Your task to perform on an android device: Open the settings Image 0: 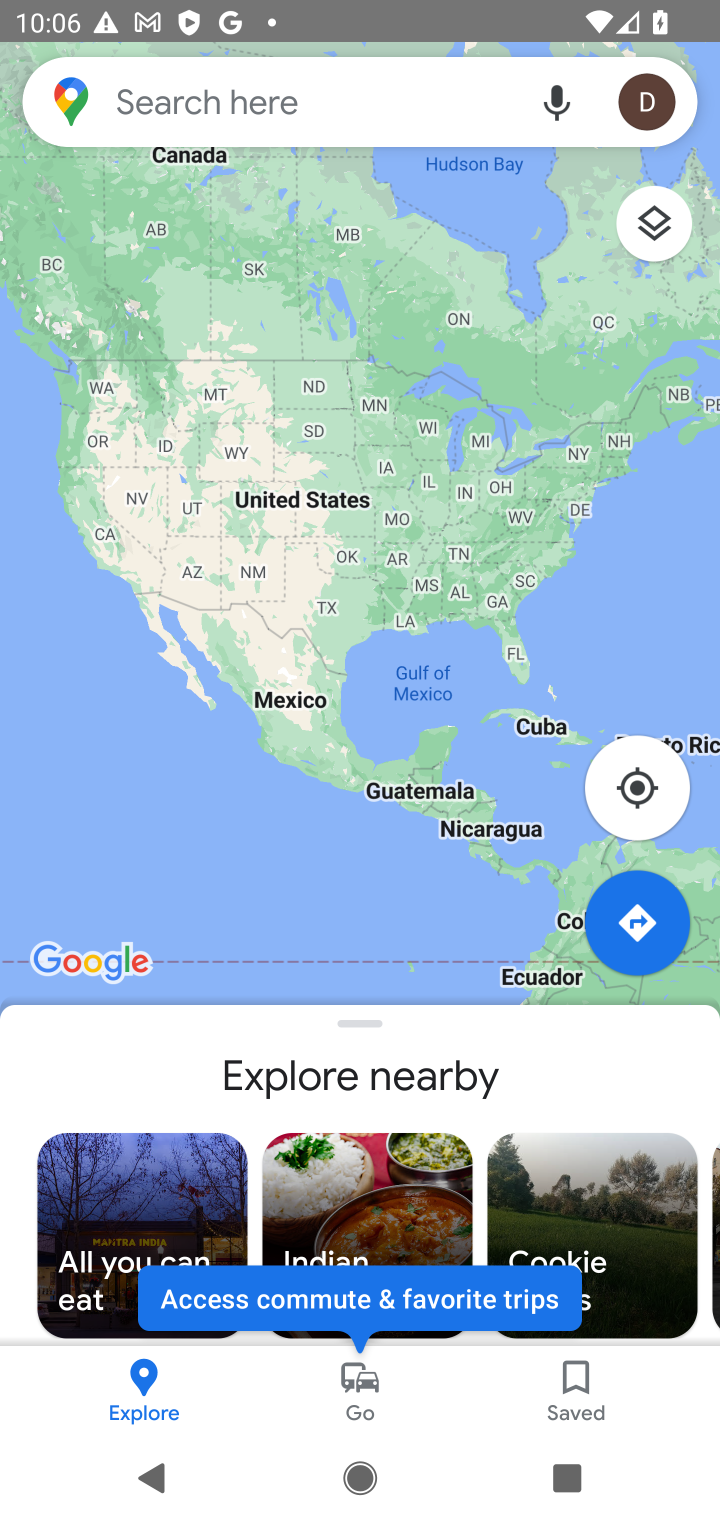
Step 0: press home button
Your task to perform on an android device: Open the settings Image 1: 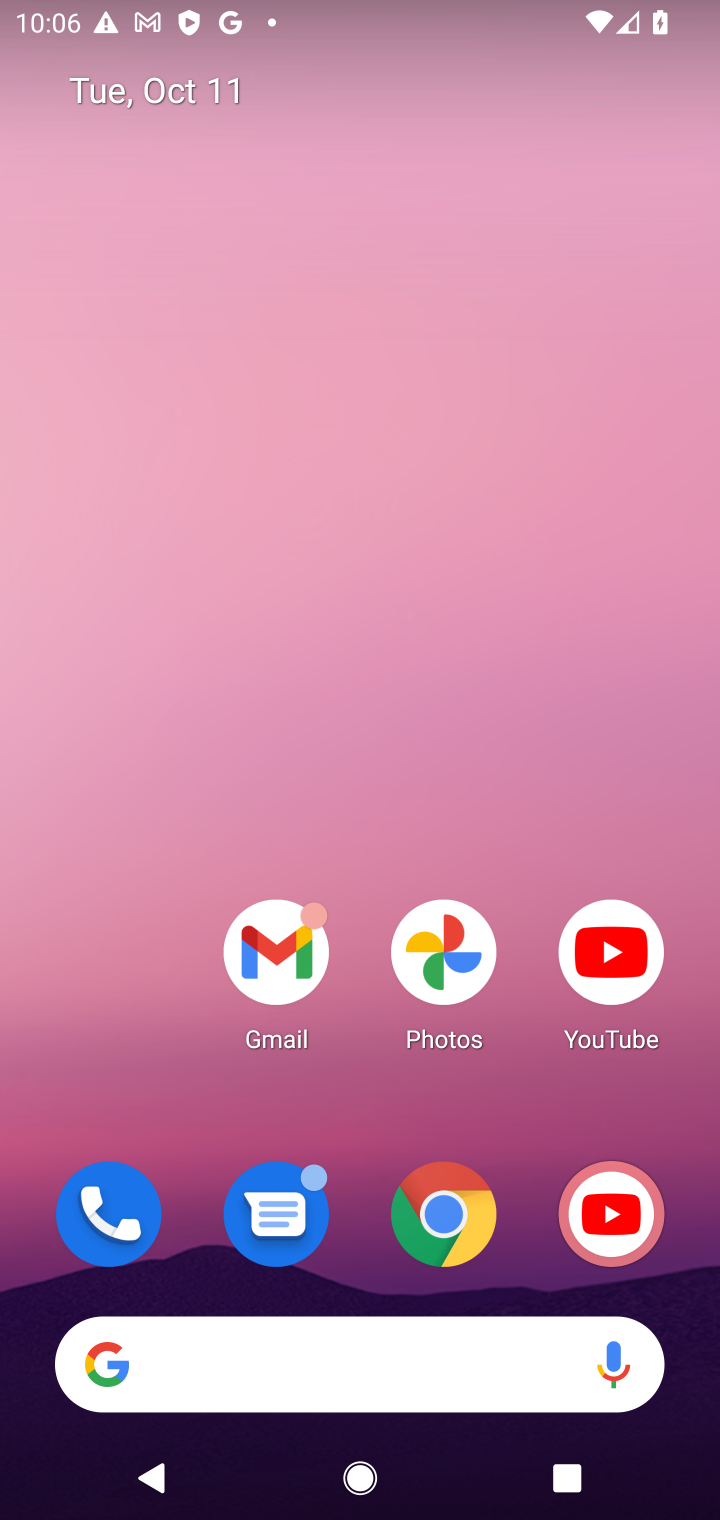
Step 1: drag from (434, 1124) to (407, 79)
Your task to perform on an android device: Open the settings Image 2: 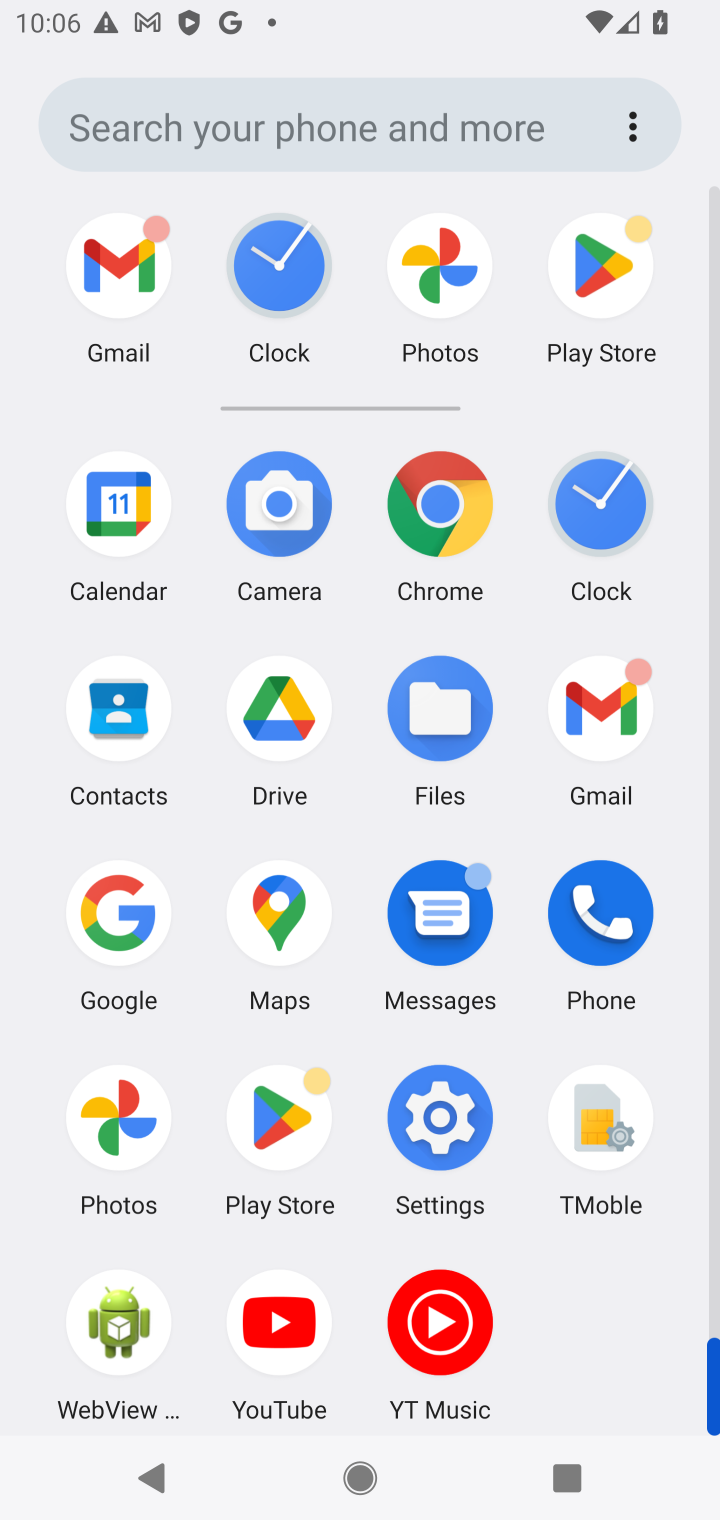
Step 2: click (464, 1110)
Your task to perform on an android device: Open the settings Image 3: 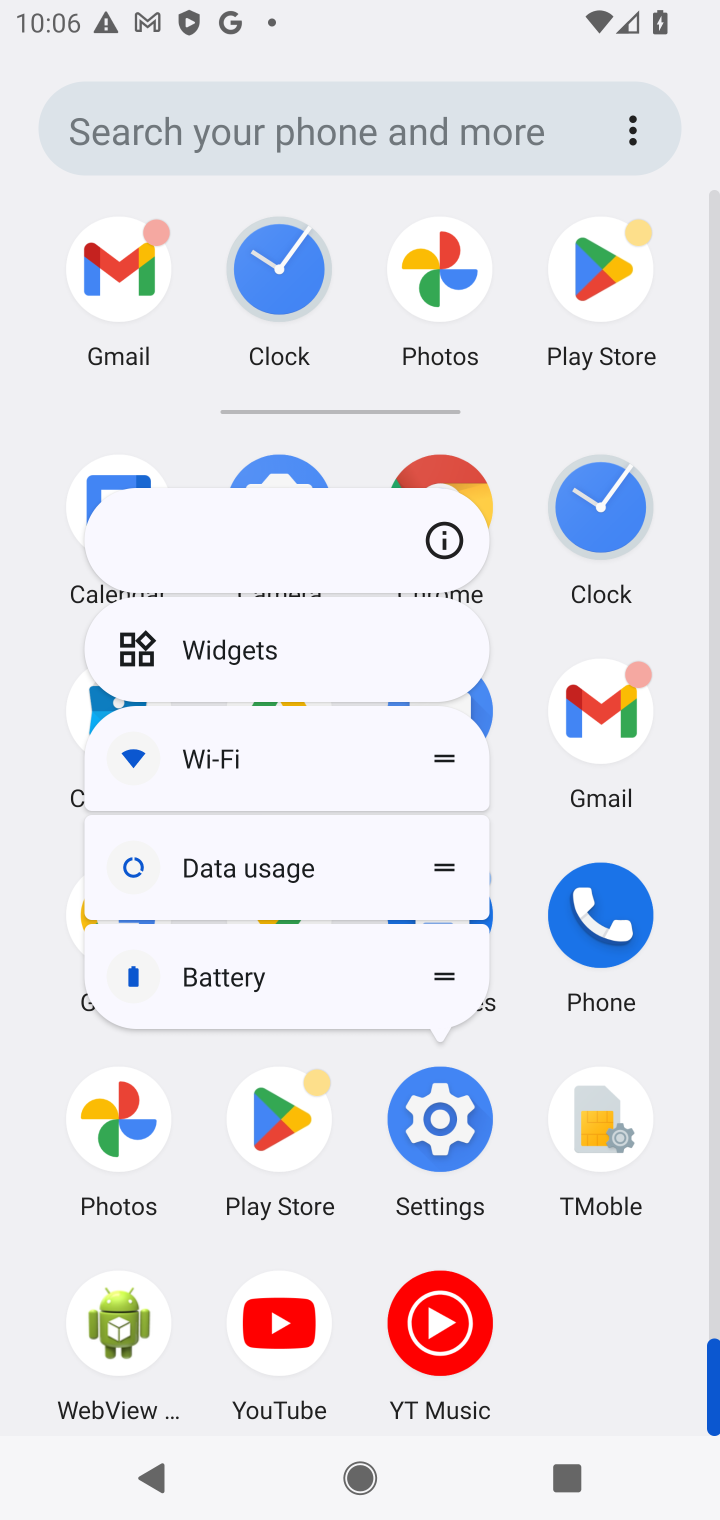
Step 3: click (452, 1087)
Your task to perform on an android device: Open the settings Image 4: 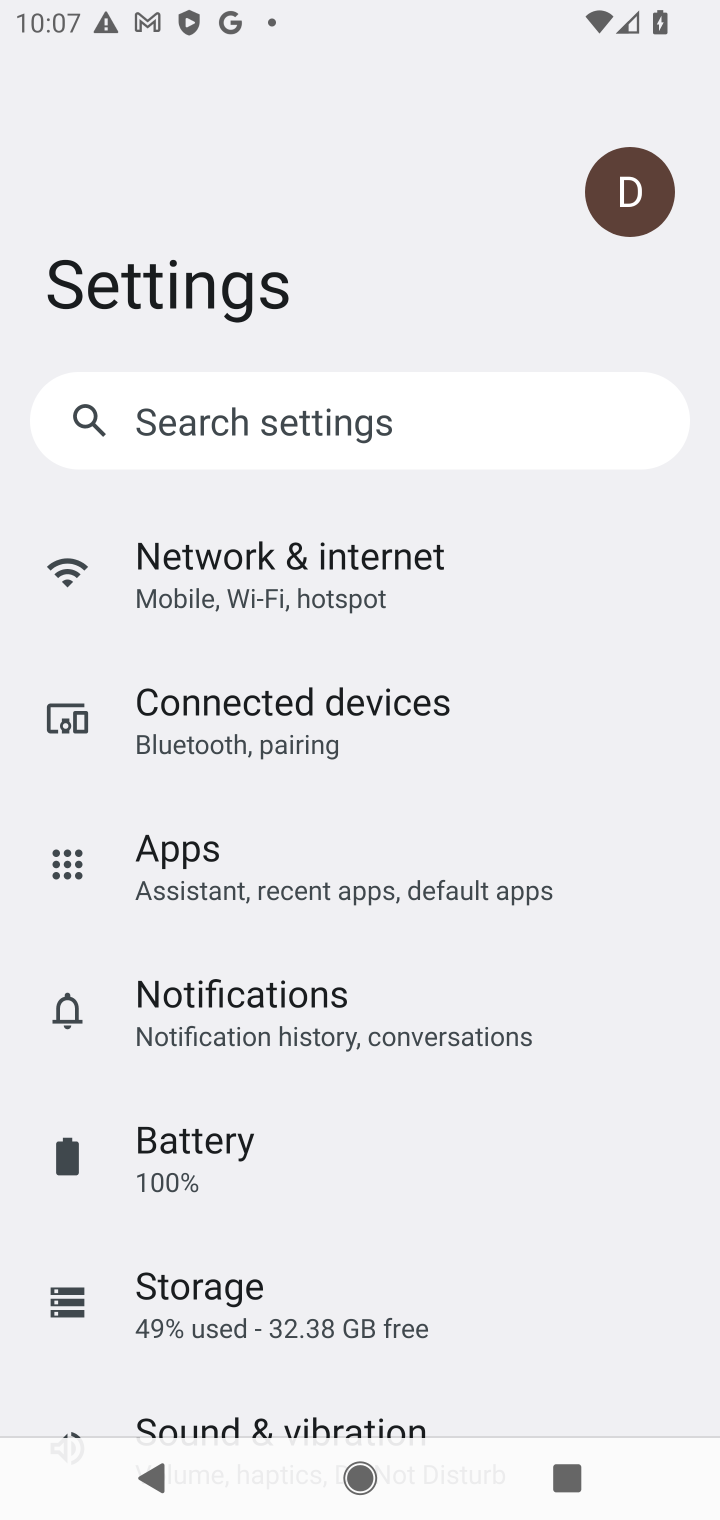
Step 4: task complete